Your task to perform on an android device: move a message to another label in the gmail app Image 0: 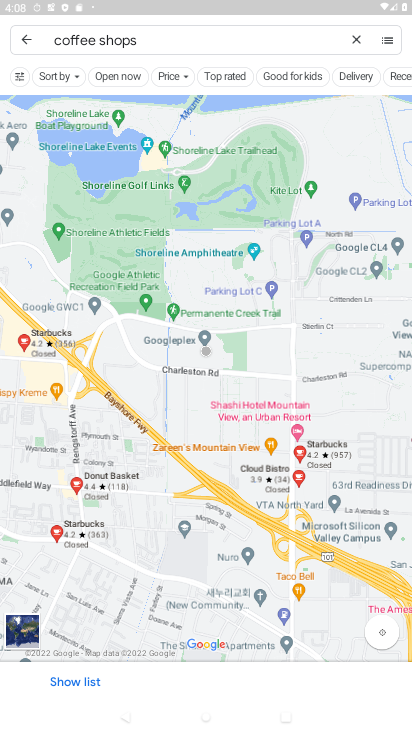
Step 0: drag from (280, 153) to (314, 28)
Your task to perform on an android device: move a message to another label in the gmail app Image 1: 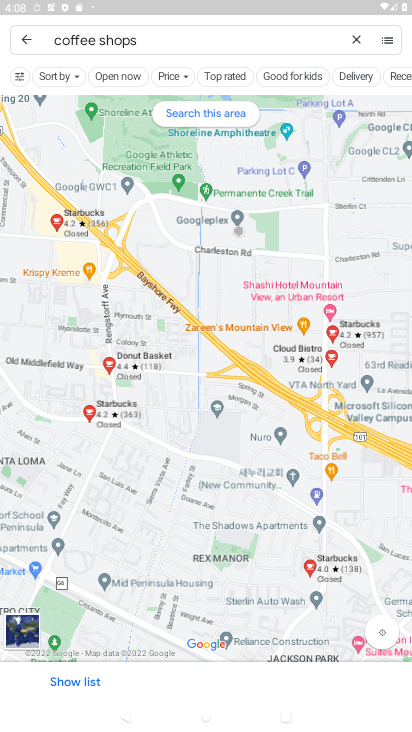
Step 1: press home button
Your task to perform on an android device: move a message to another label in the gmail app Image 2: 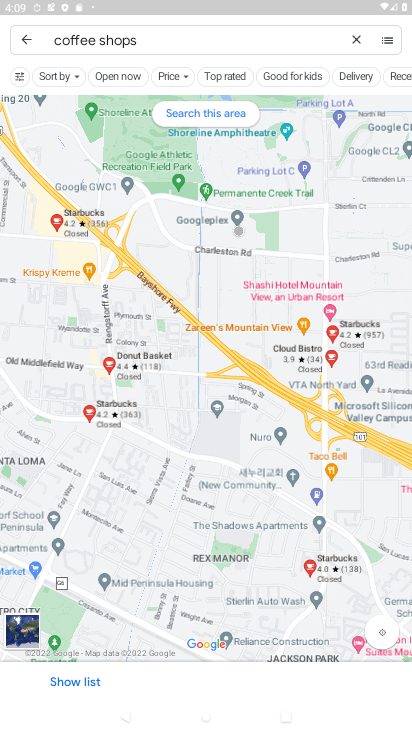
Step 2: drag from (314, 28) to (386, 640)
Your task to perform on an android device: move a message to another label in the gmail app Image 3: 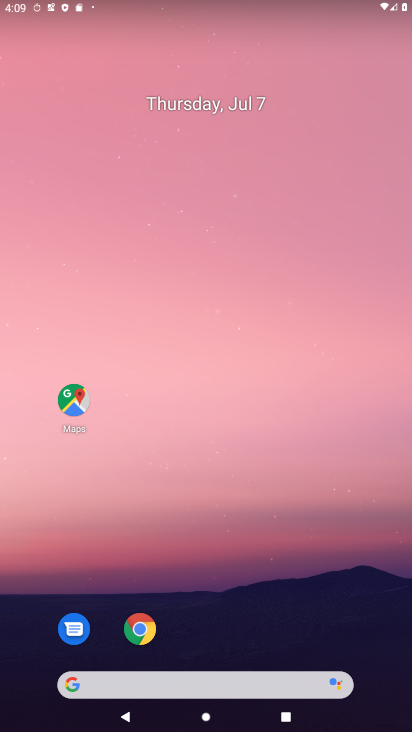
Step 3: drag from (198, 560) to (234, 128)
Your task to perform on an android device: move a message to another label in the gmail app Image 4: 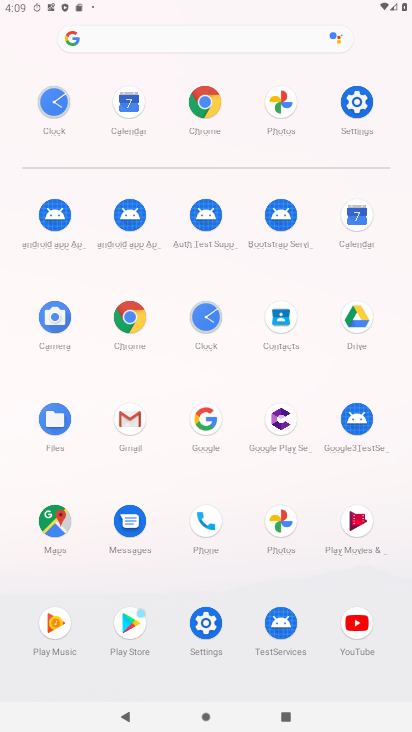
Step 4: click (125, 436)
Your task to perform on an android device: move a message to another label in the gmail app Image 5: 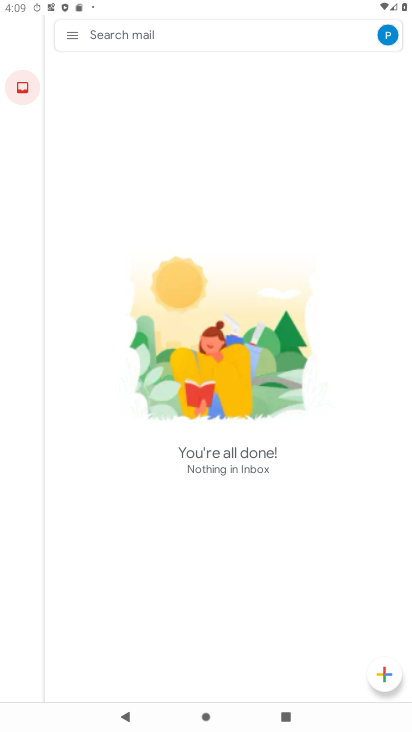
Step 5: drag from (113, 421) to (27, 371)
Your task to perform on an android device: move a message to another label in the gmail app Image 6: 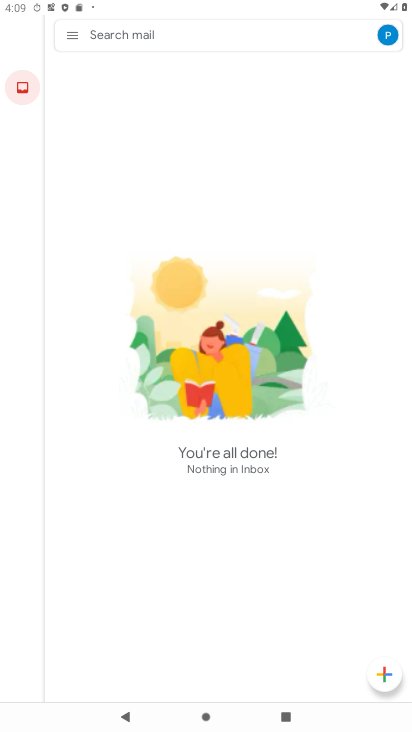
Step 6: click (81, 28)
Your task to perform on an android device: move a message to another label in the gmail app Image 7: 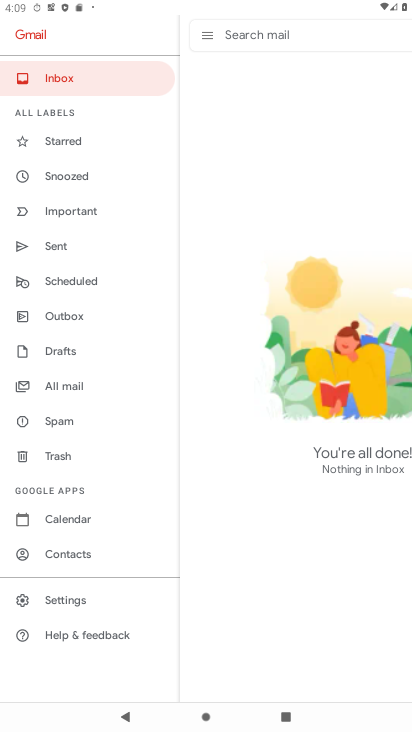
Step 7: click (64, 385)
Your task to perform on an android device: move a message to another label in the gmail app Image 8: 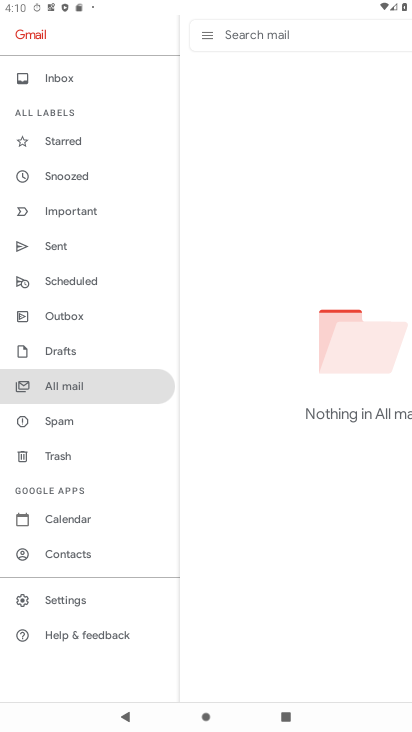
Step 8: click (64, 385)
Your task to perform on an android device: move a message to another label in the gmail app Image 9: 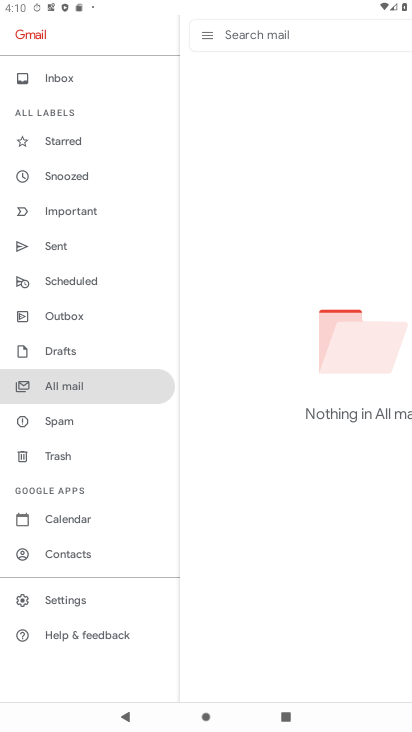
Step 9: task complete